Your task to perform on an android device: delete location history Image 0: 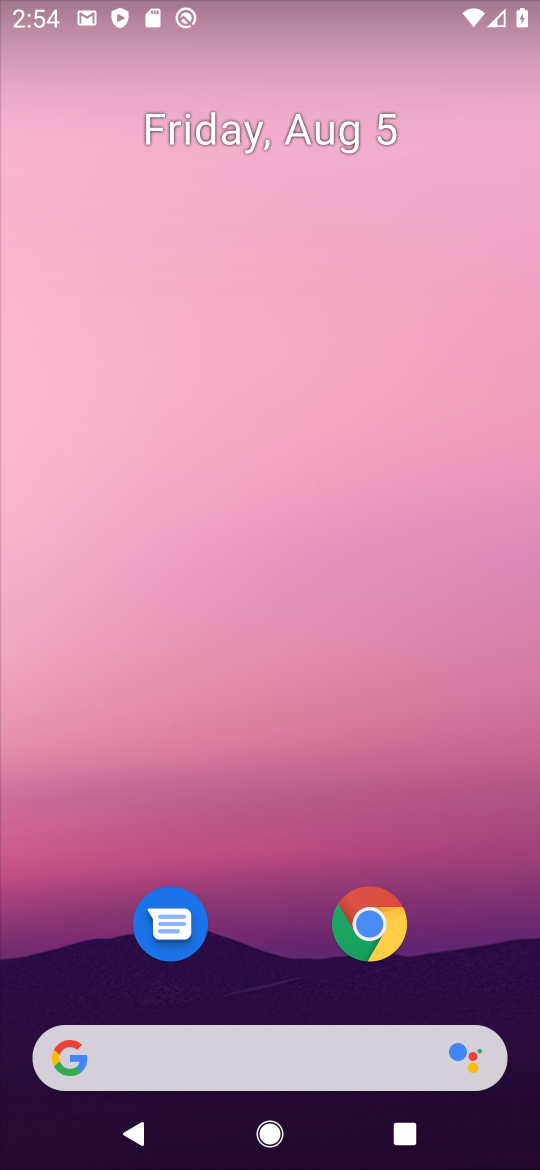
Step 0: drag from (274, 840) to (352, 15)
Your task to perform on an android device: delete location history Image 1: 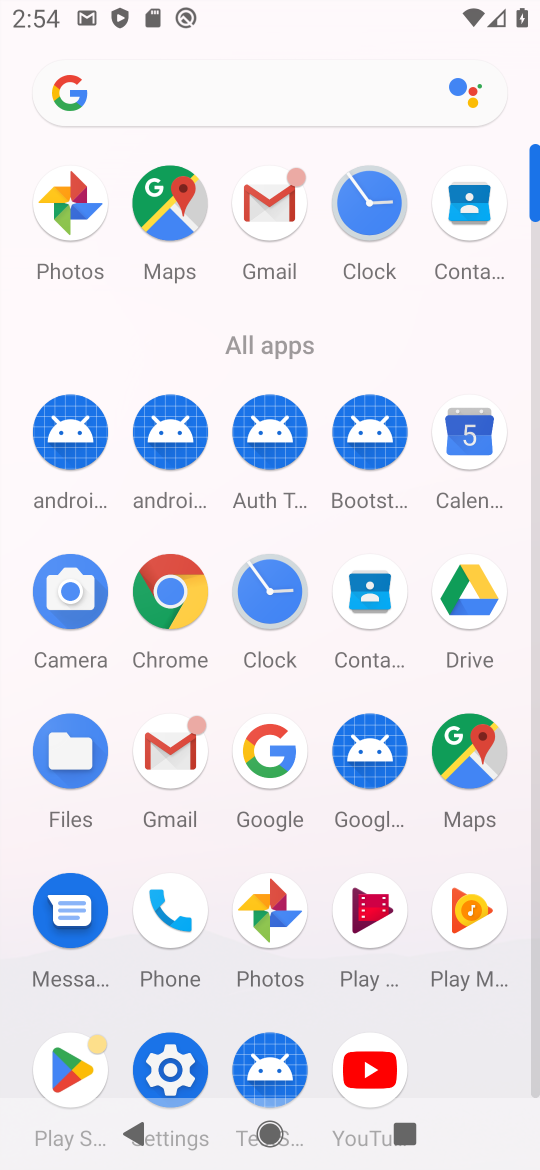
Step 1: click (184, 1061)
Your task to perform on an android device: delete location history Image 2: 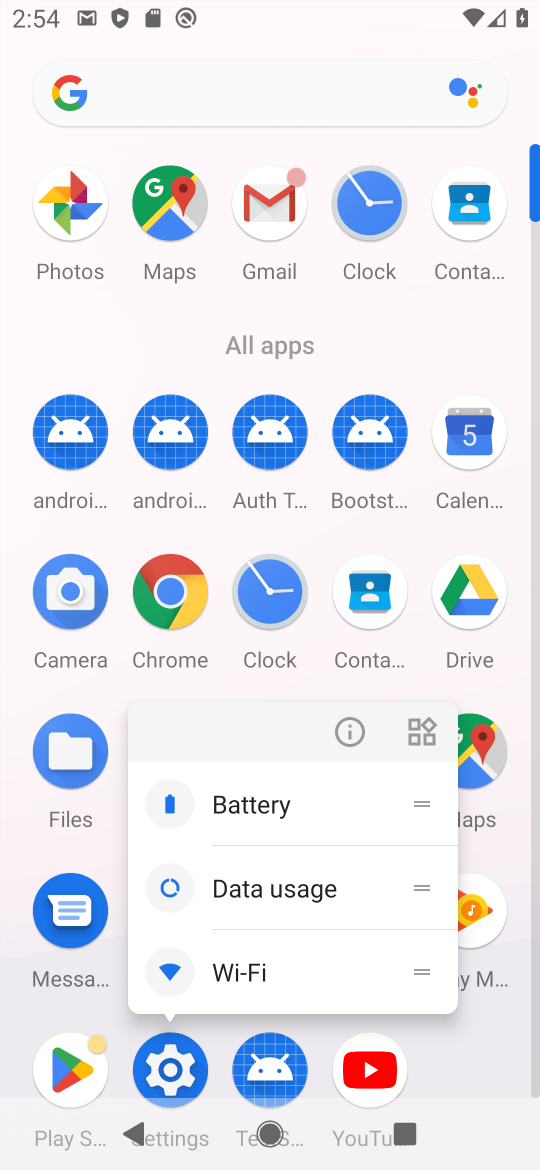
Step 2: click (188, 1065)
Your task to perform on an android device: delete location history Image 3: 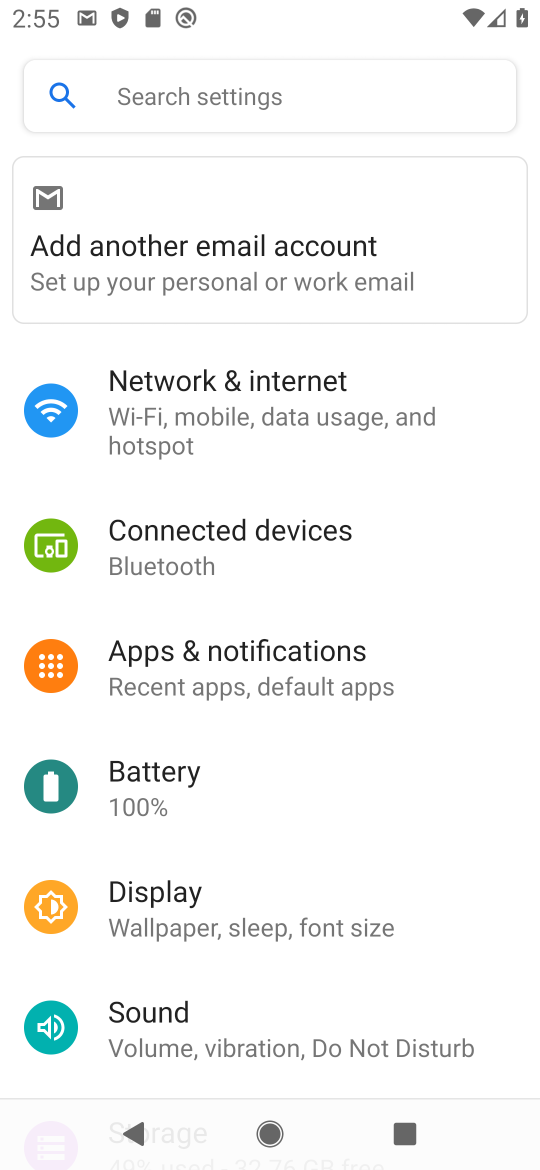
Step 3: drag from (309, 851) to (344, 263)
Your task to perform on an android device: delete location history Image 4: 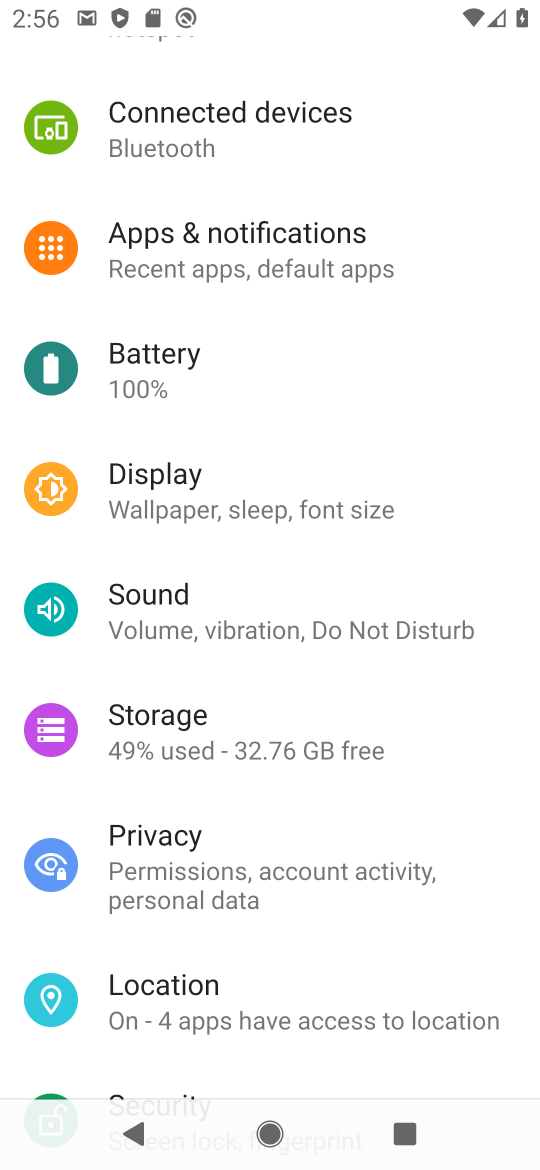
Step 4: click (256, 995)
Your task to perform on an android device: delete location history Image 5: 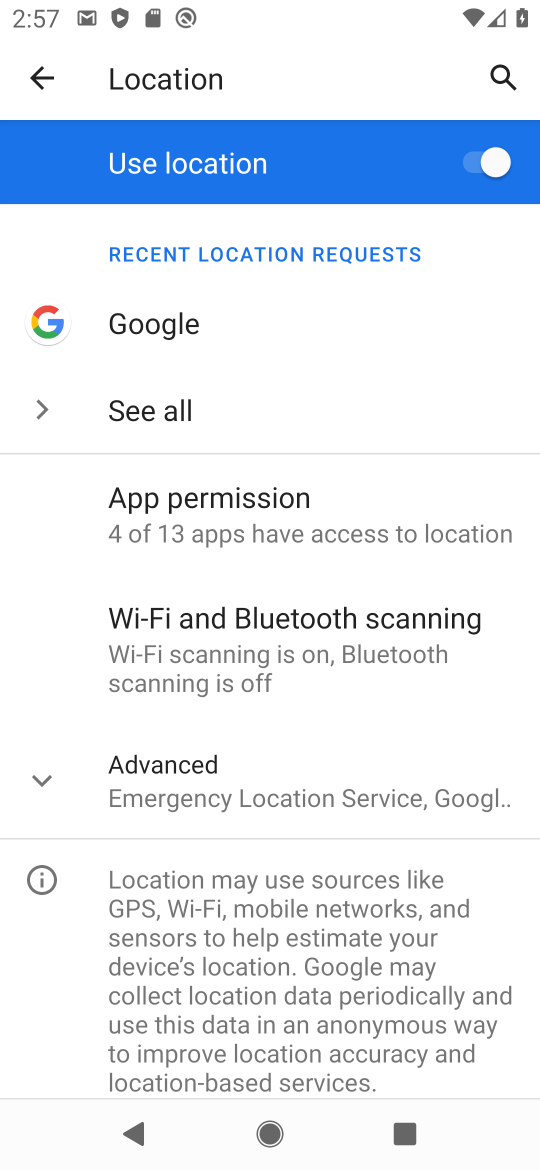
Step 5: drag from (330, 998) to (283, 325)
Your task to perform on an android device: delete location history Image 6: 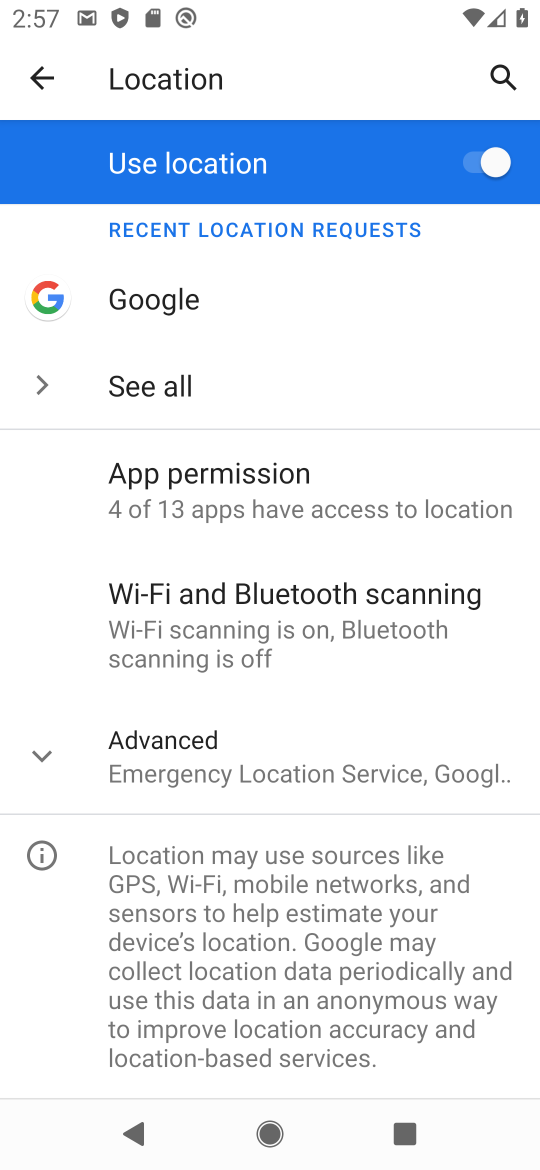
Step 6: drag from (259, 867) to (221, 218)
Your task to perform on an android device: delete location history Image 7: 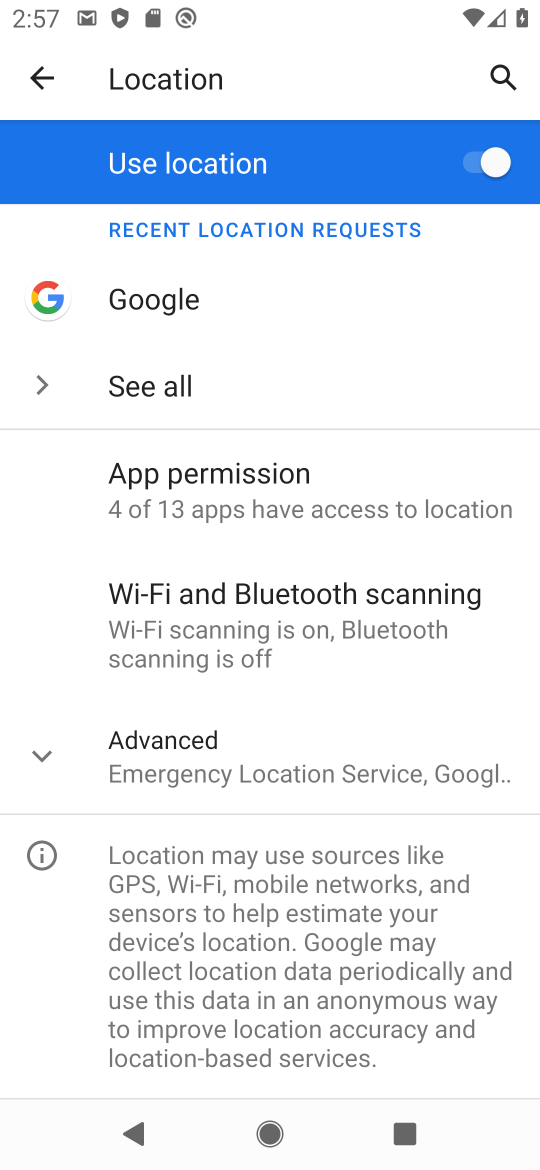
Step 7: click (152, 762)
Your task to perform on an android device: delete location history Image 8: 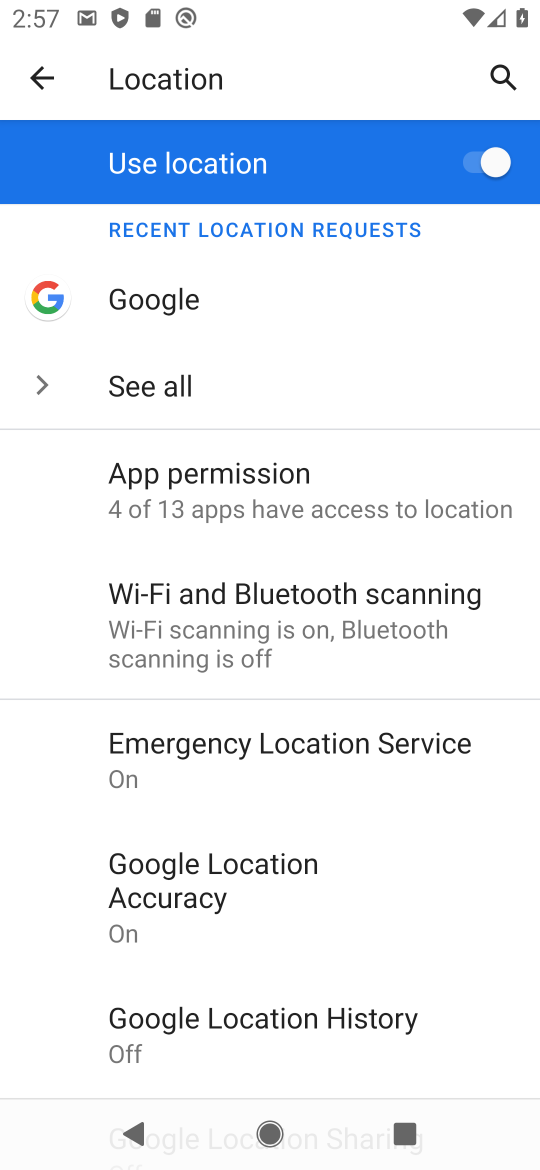
Step 8: click (312, 1024)
Your task to perform on an android device: delete location history Image 9: 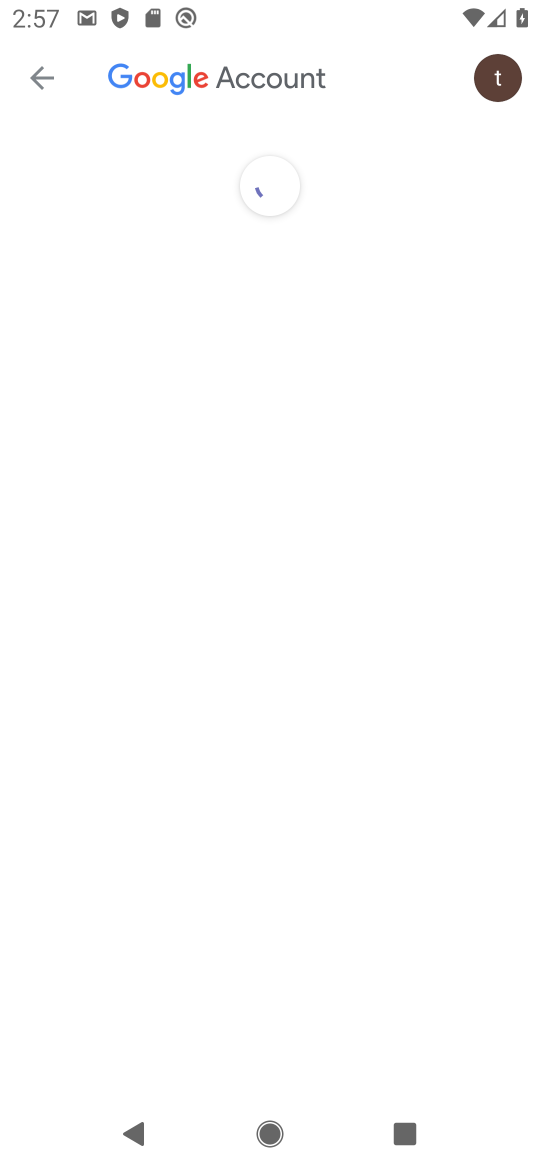
Step 9: drag from (188, 801) to (219, 227)
Your task to perform on an android device: delete location history Image 10: 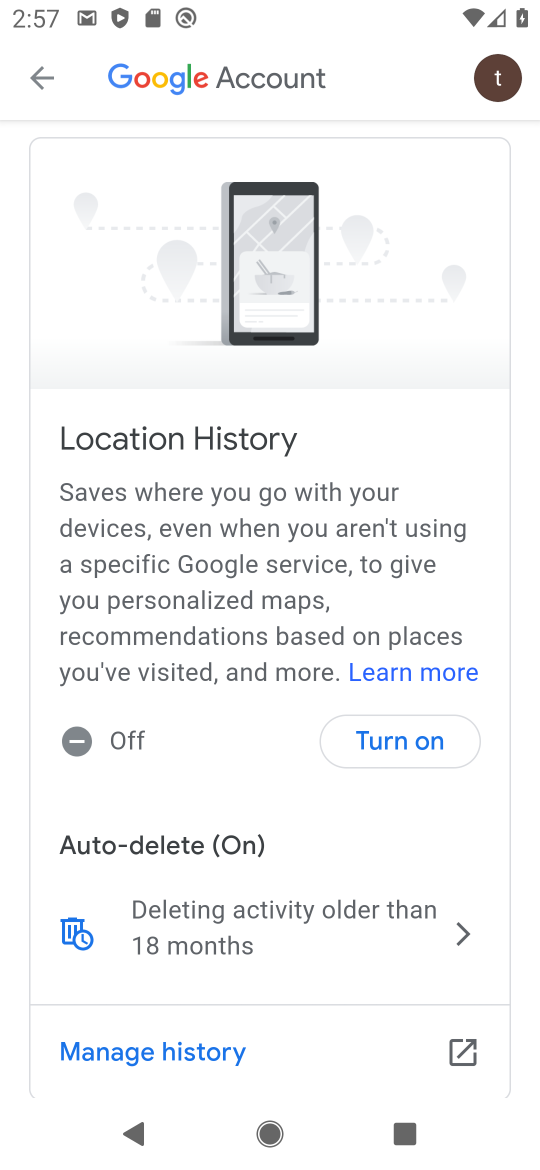
Step 10: click (403, 932)
Your task to perform on an android device: delete location history Image 11: 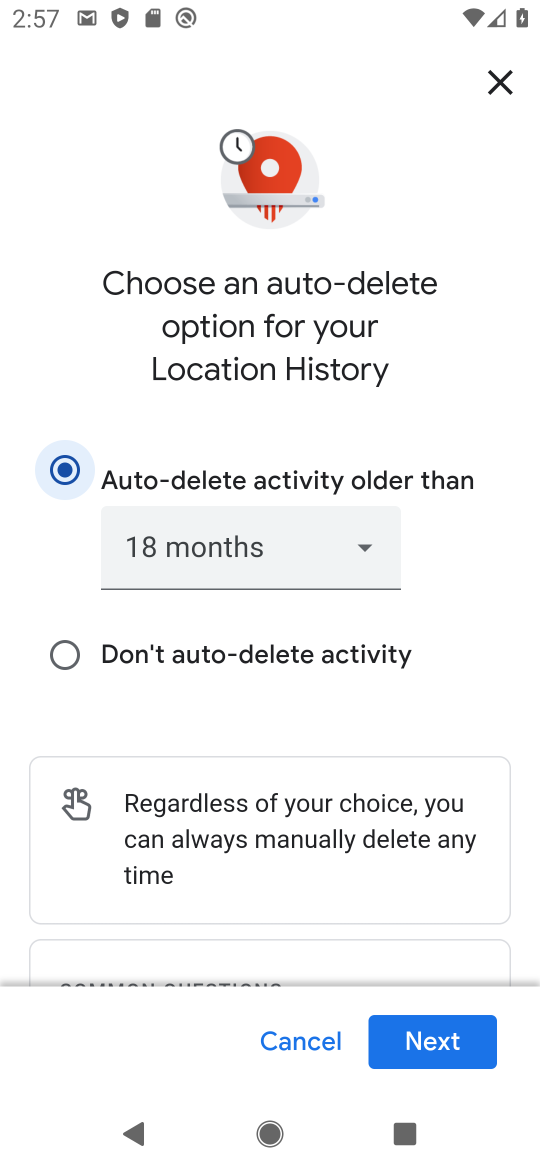
Step 11: click (442, 1054)
Your task to perform on an android device: delete location history Image 12: 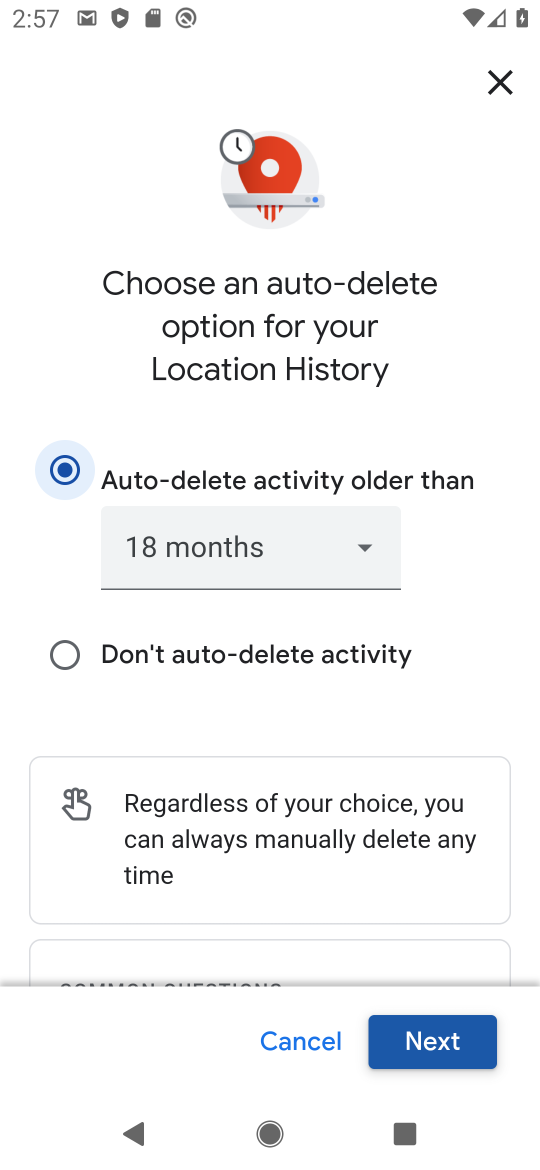
Step 12: click (443, 1047)
Your task to perform on an android device: delete location history Image 13: 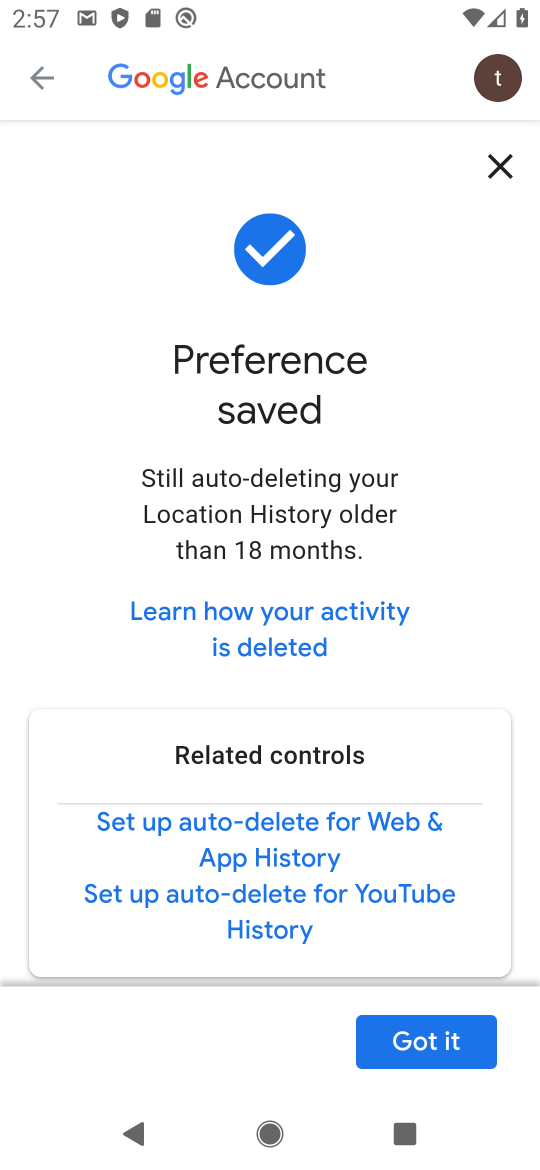
Step 13: click (434, 1039)
Your task to perform on an android device: delete location history Image 14: 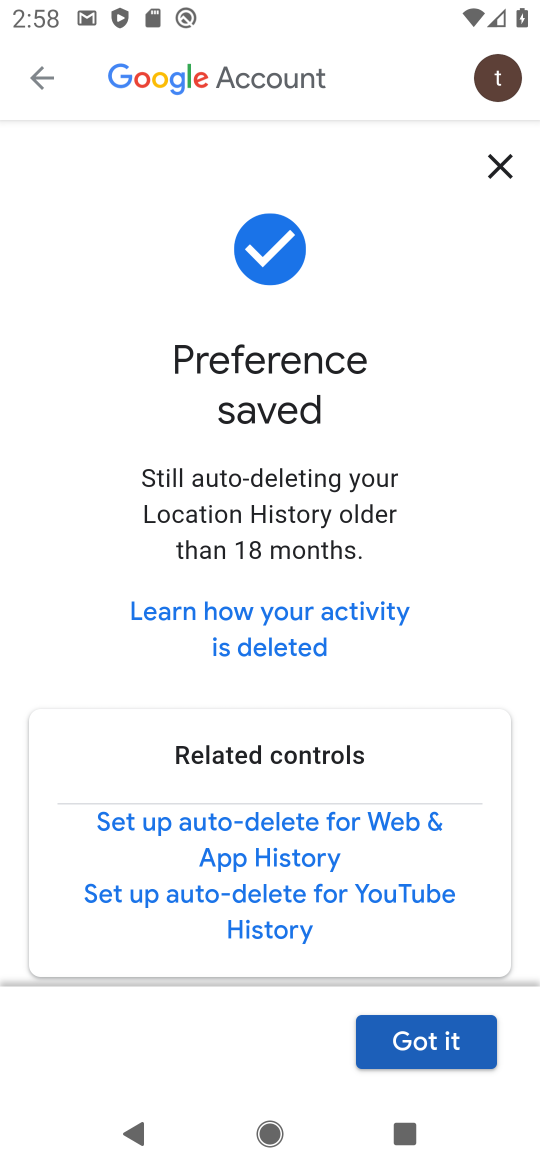
Step 14: click (351, 1041)
Your task to perform on an android device: delete location history Image 15: 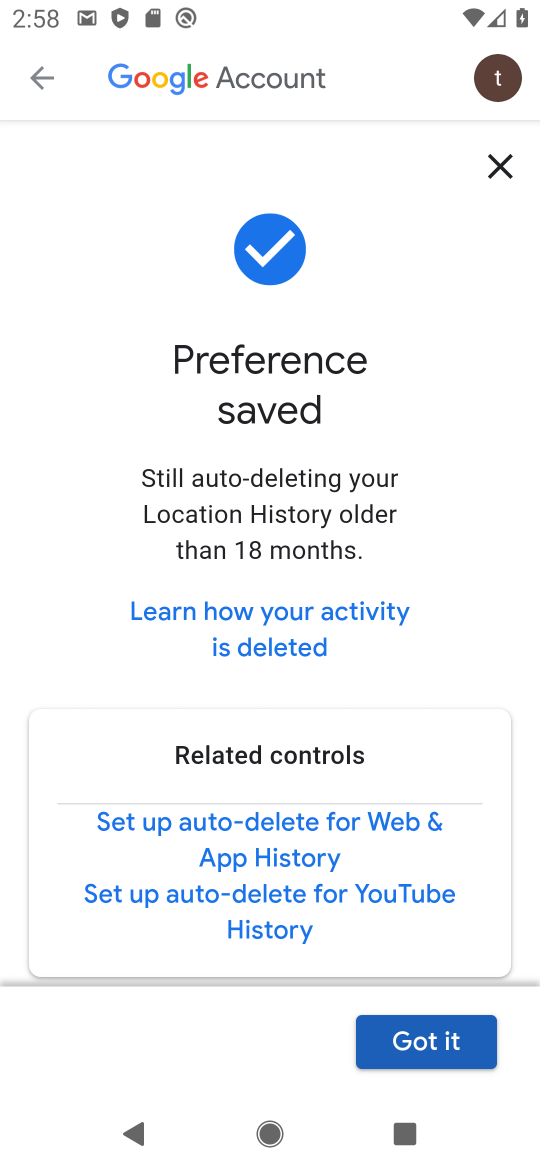
Step 15: click (375, 1039)
Your task to perform on an android device: delete location history Image 16: 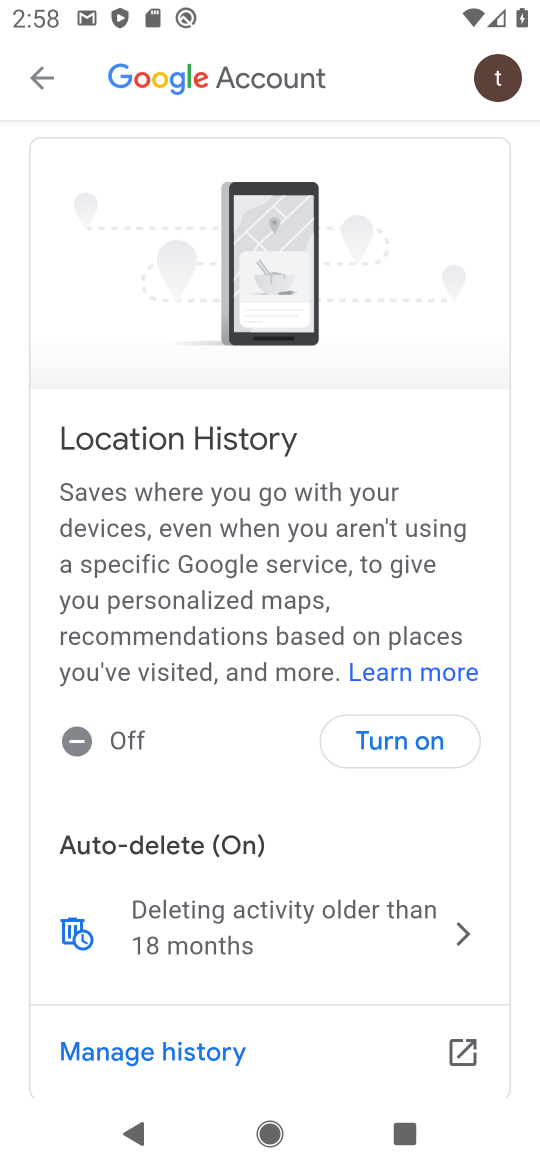
Step 16: task complete